Your task to perform on an android device: turn notification dots off Image 0: 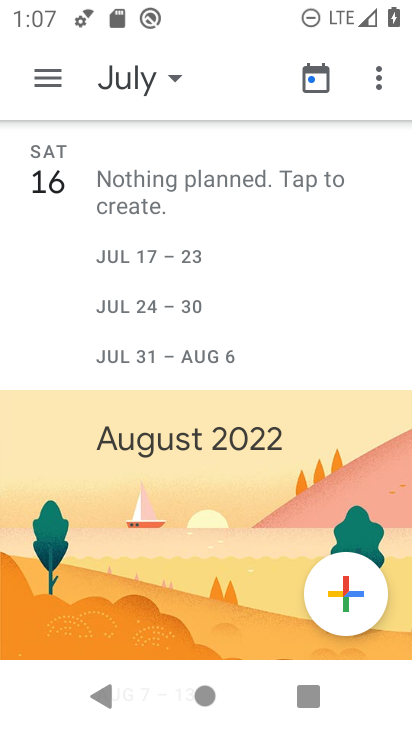
Step 0: press home button
Your task to perform on an android device: turn notification dots off Image 1: 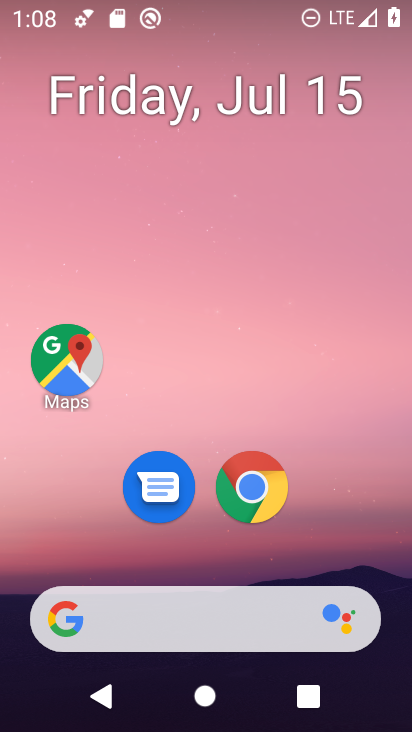
Step 1: drag from (269, 579) to (282, 162)
Your task to perform on an android device: turn notification dots off Image 2: 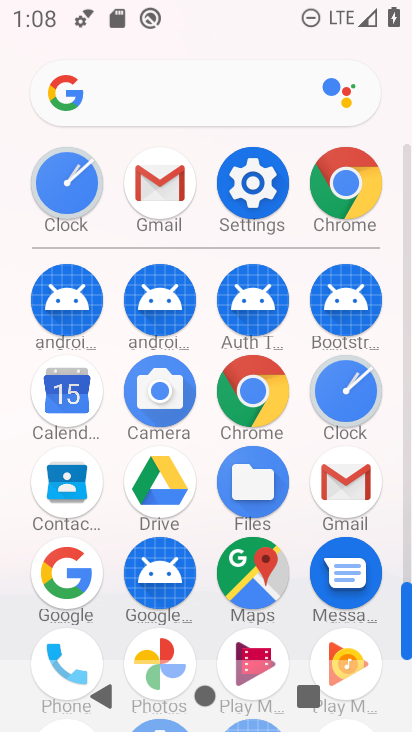
Step 2: click (269, 207)
Your task to perform on an android device: turn notification dots off Image 3: 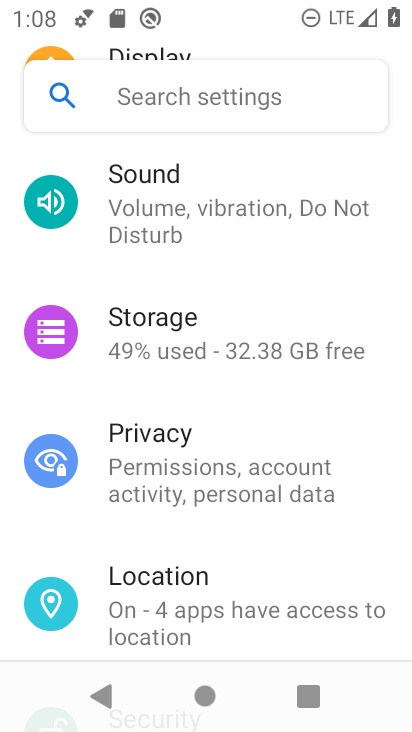
Step 3: drag from (233, 298) to (235, 392)
Your task to perform on an android device: turn notification dots off Image 4: 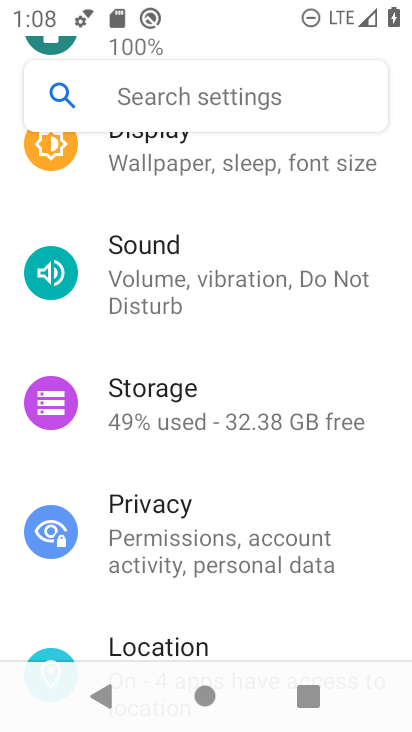
Step 4: drag from (246, 240) to (251, 371)
Your task to perform on an android device: turn notification dots off Image 5: 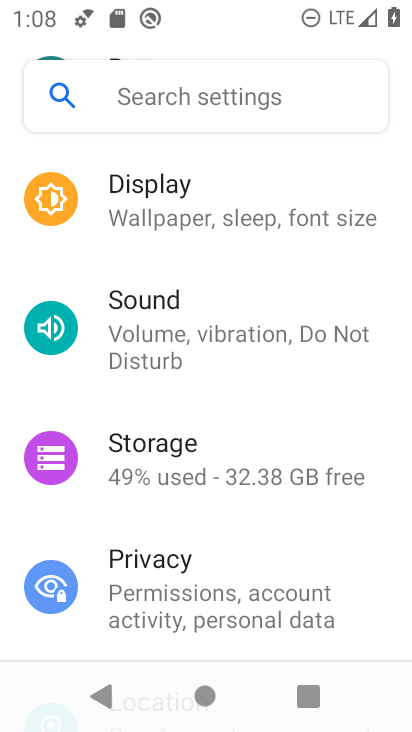
Step 5: drag from (247, 234) to (254, 425)
Your task to perform on an android device: turn notification dots off Image 6: 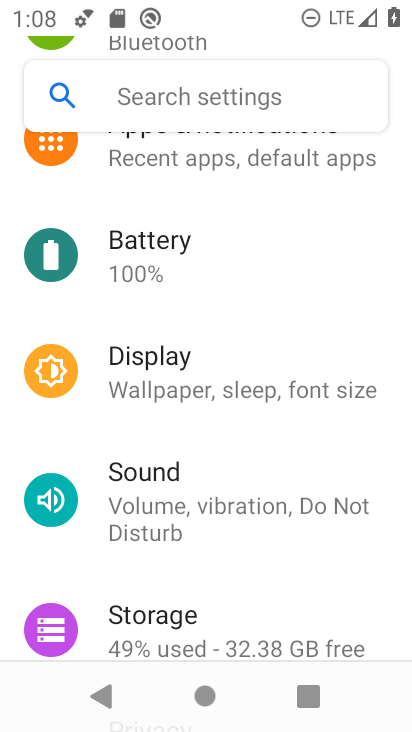
Step 6: drag from (276, 201) to (267, 471)
Your task to perform on an android device: turn notification dots off Image 7: 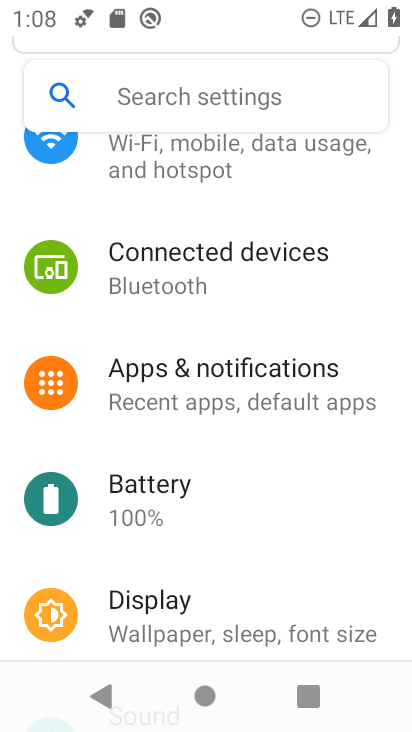
Step 7: click (243, 392)
Your task to perform on an android device: turn notification dots off Image 8: 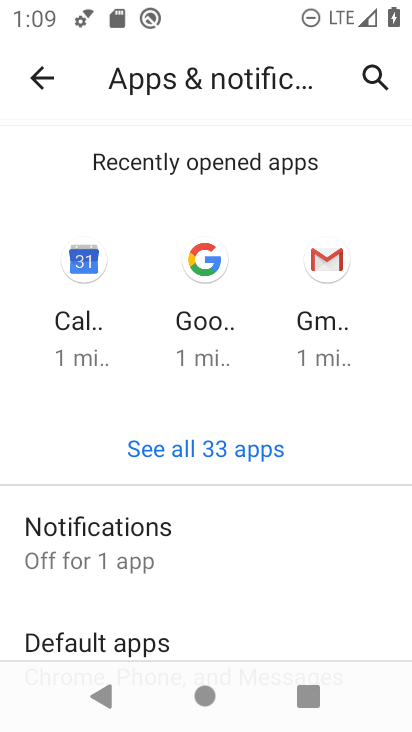
Step 8: click (171, 551)
Your task to perform on an android device: turn notification dots off Image 9: 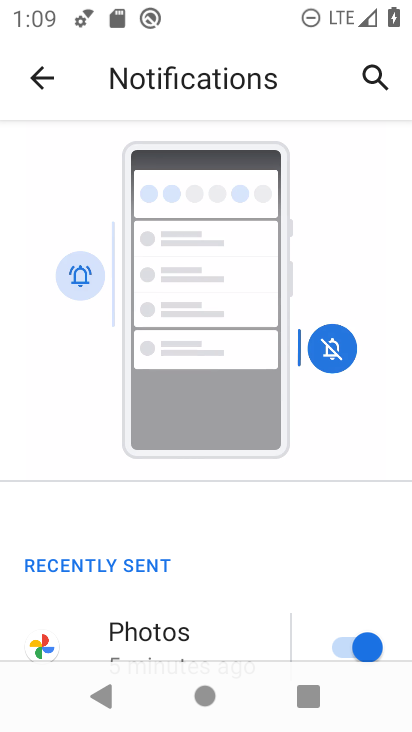
Step 9: drag from (222, 601) to (311, 2)
Your task to perform on an android device: turn notification dots off Image 10: 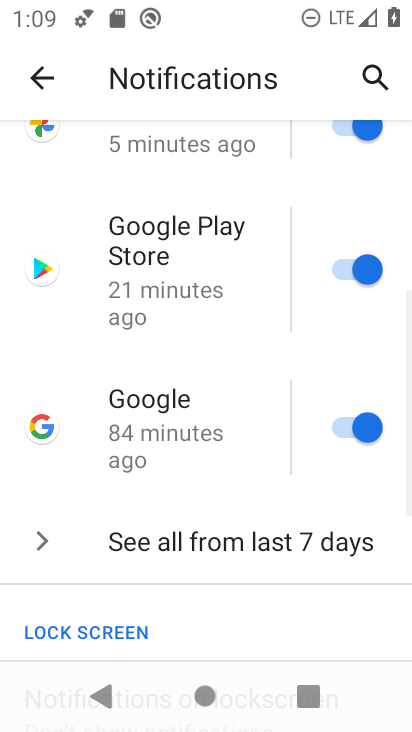
Step 10: drag from (241, 576) to (233, 340)
Your task to perform on an android device: turn notification dots off Image 11: 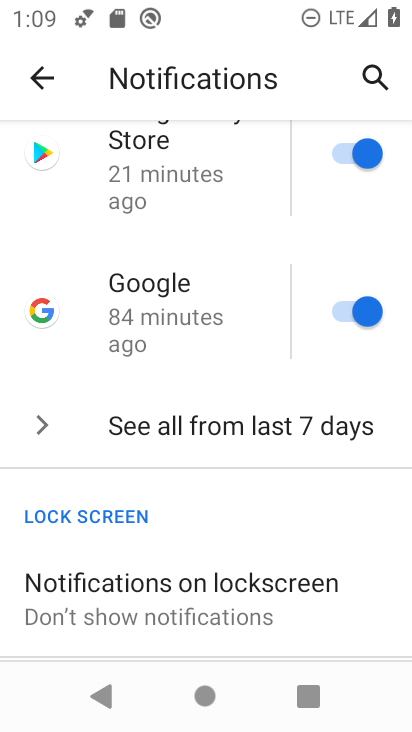
Step 11: drag from (265, 617) to (299, 200)
Your task to perform on an android device: turn notification dots off Image 12: 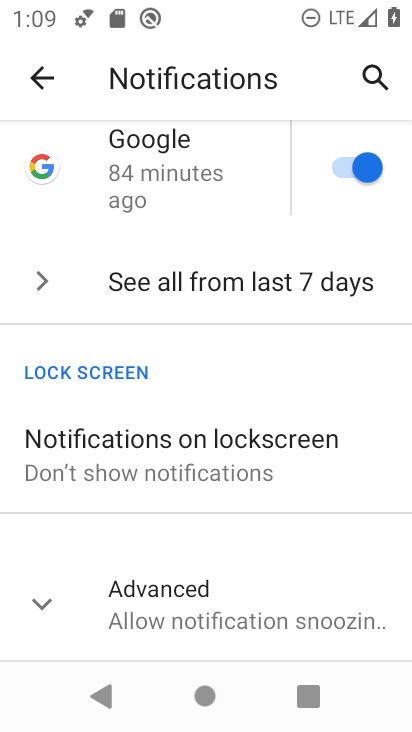
Step 12: click (223, 602)
Your task to perform on an android device: turn notification dots off Image 13: 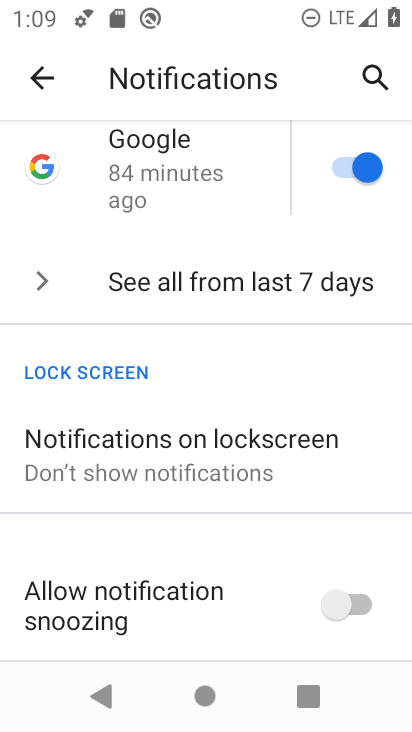
Step 13: drag from (223, 602) to (231, 117)
Your task to perform on an android device: turn notification dots off Image 14: 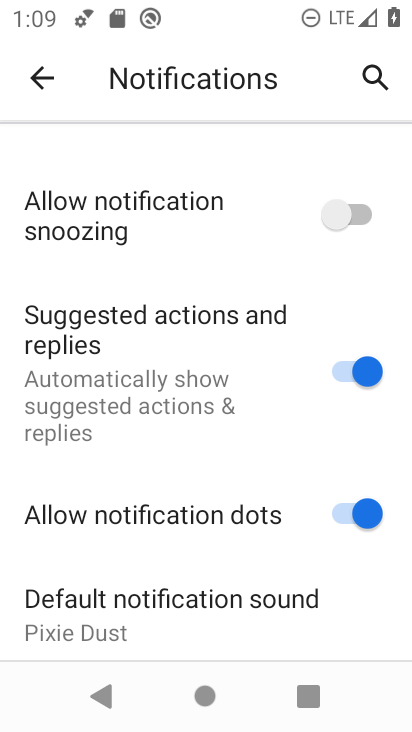
Step 14: click (326, 511)
Your task to perform on an android device: turn notification dots off Image 15: 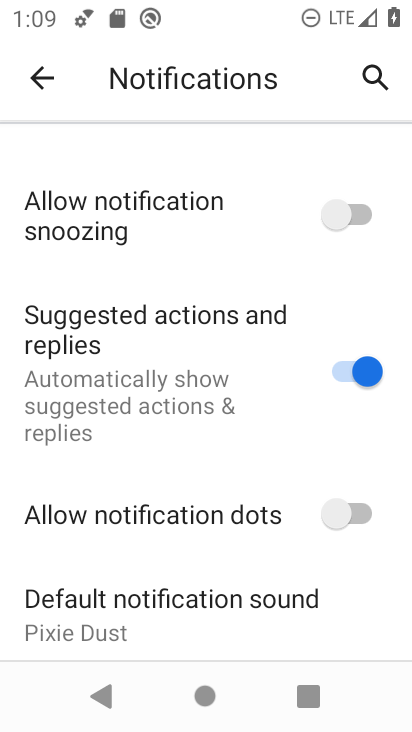
Step 15: task complete